Your task to perform on an android device: open app "Indeed Job Search" Image 0: 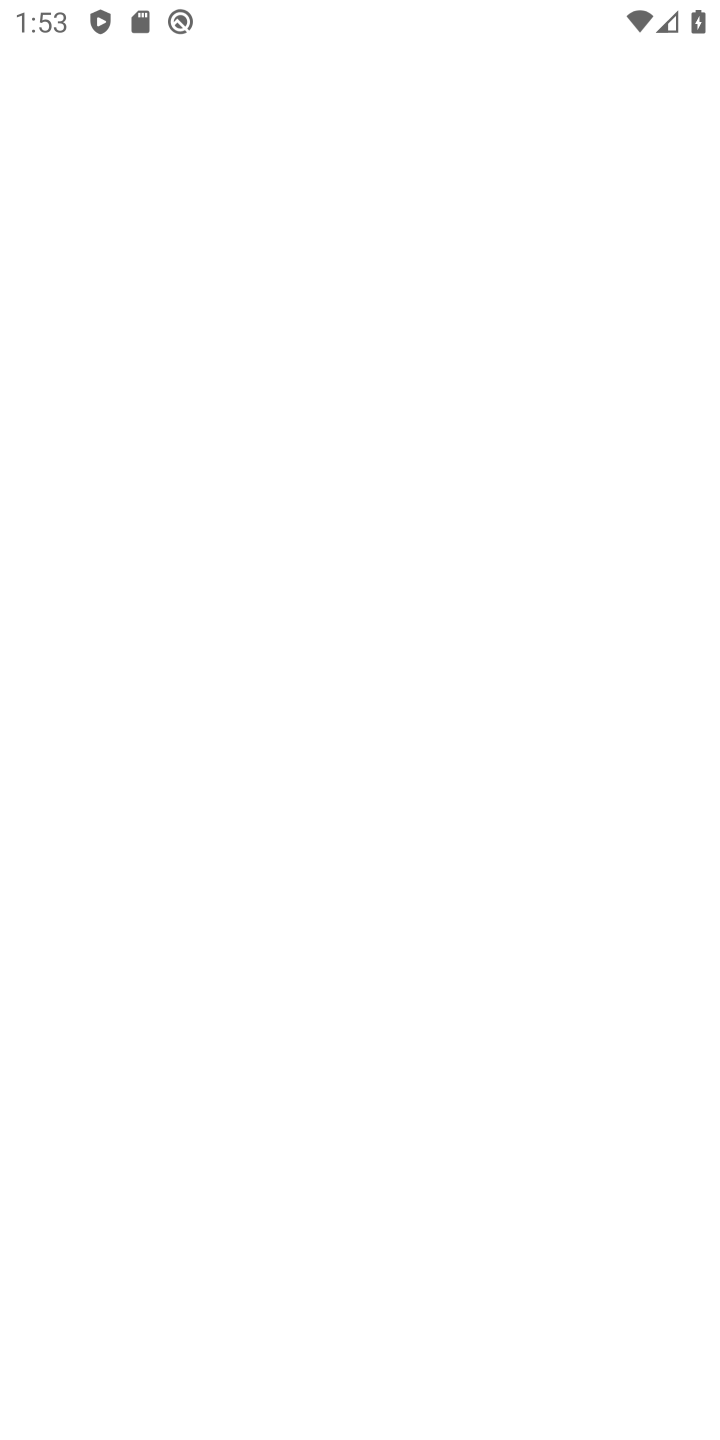
Step 0: press back button
Your task to perform on an android device: open app "Indeed Job Search" Image 1: 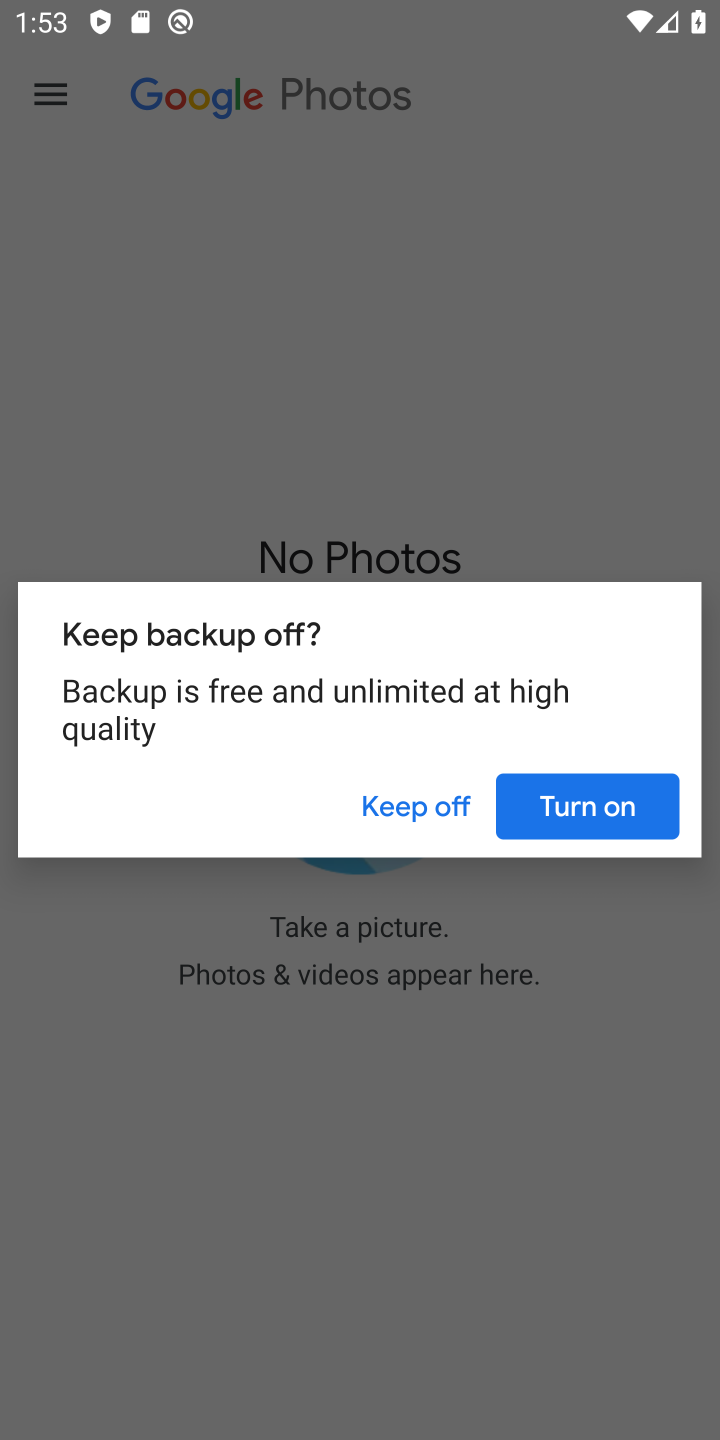
Step 1: press home button
Your task to perform on an android device: open app "Indeed Job Search" Image 2: 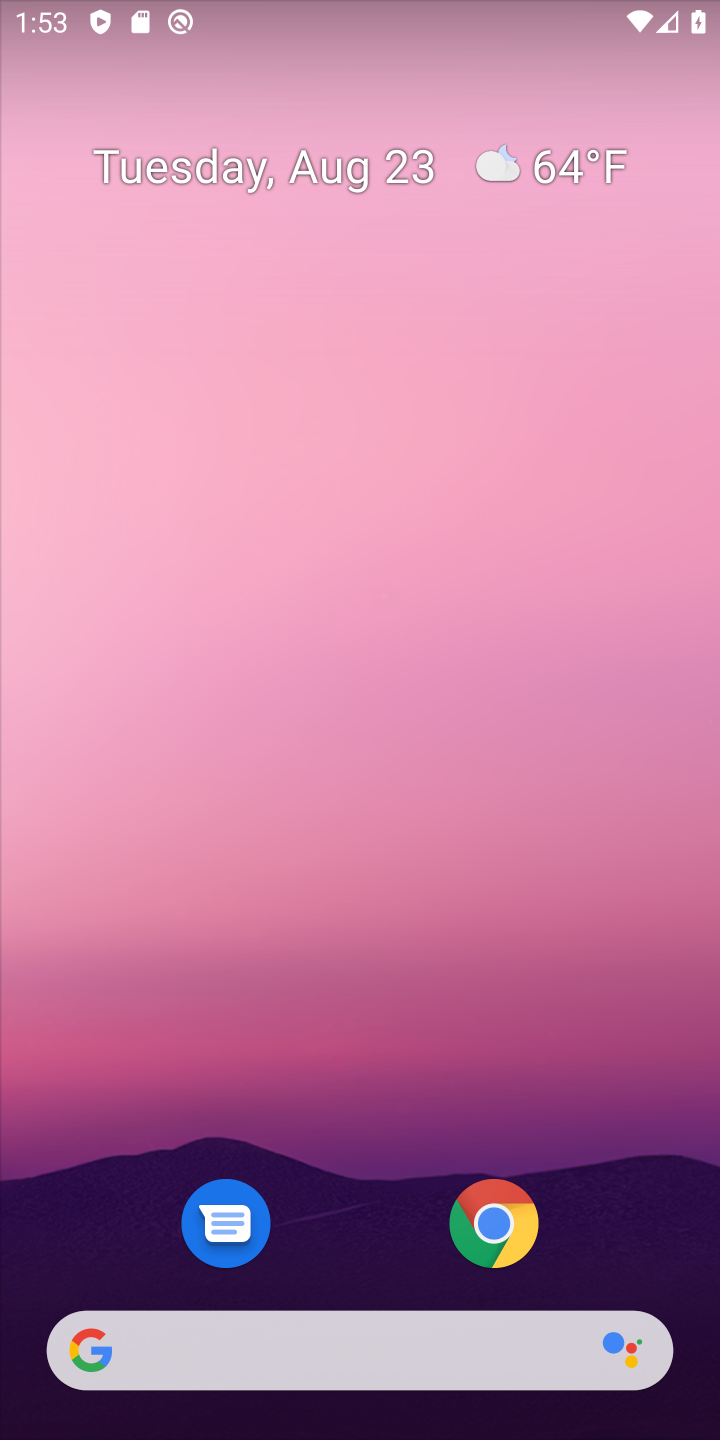
Step 2: drag from (369, 1162) to (428, 280)
Your task to perform on an android device: open app "Indeed Job Search" Image 3: 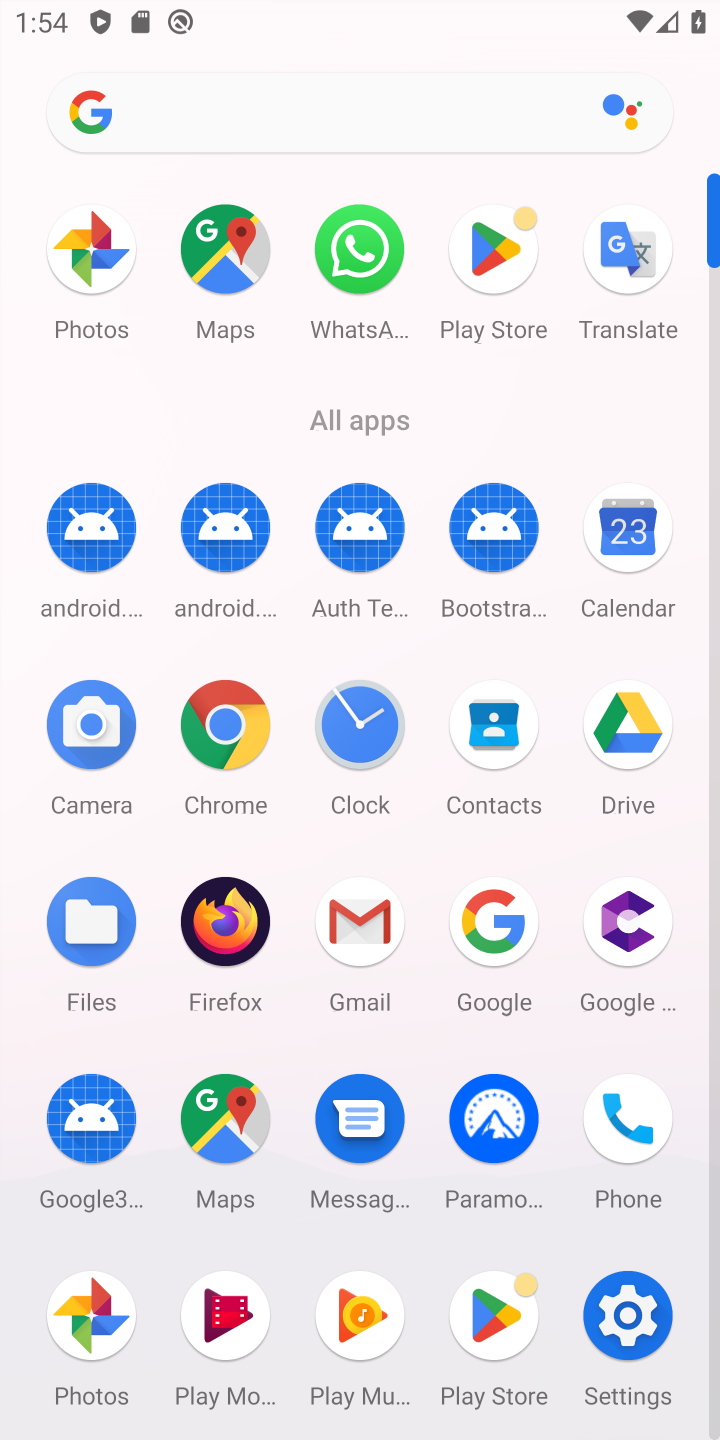
Step 3: click (506, 258)
Your task to perform on an android device: open app "Indeed Job Search" Image 4: 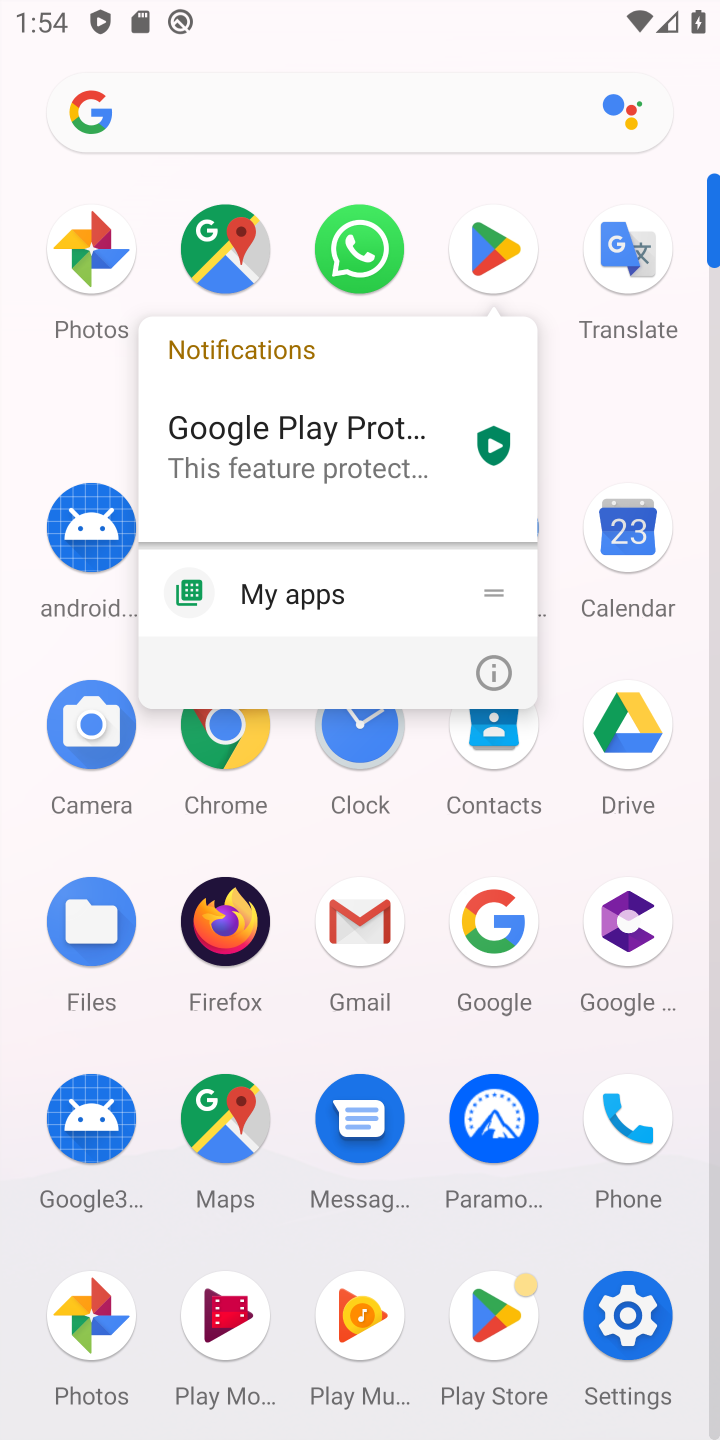
Step 4: click (480, 266)
Your task to perform on an android device: open app "Indeed Job Search" Image 5: 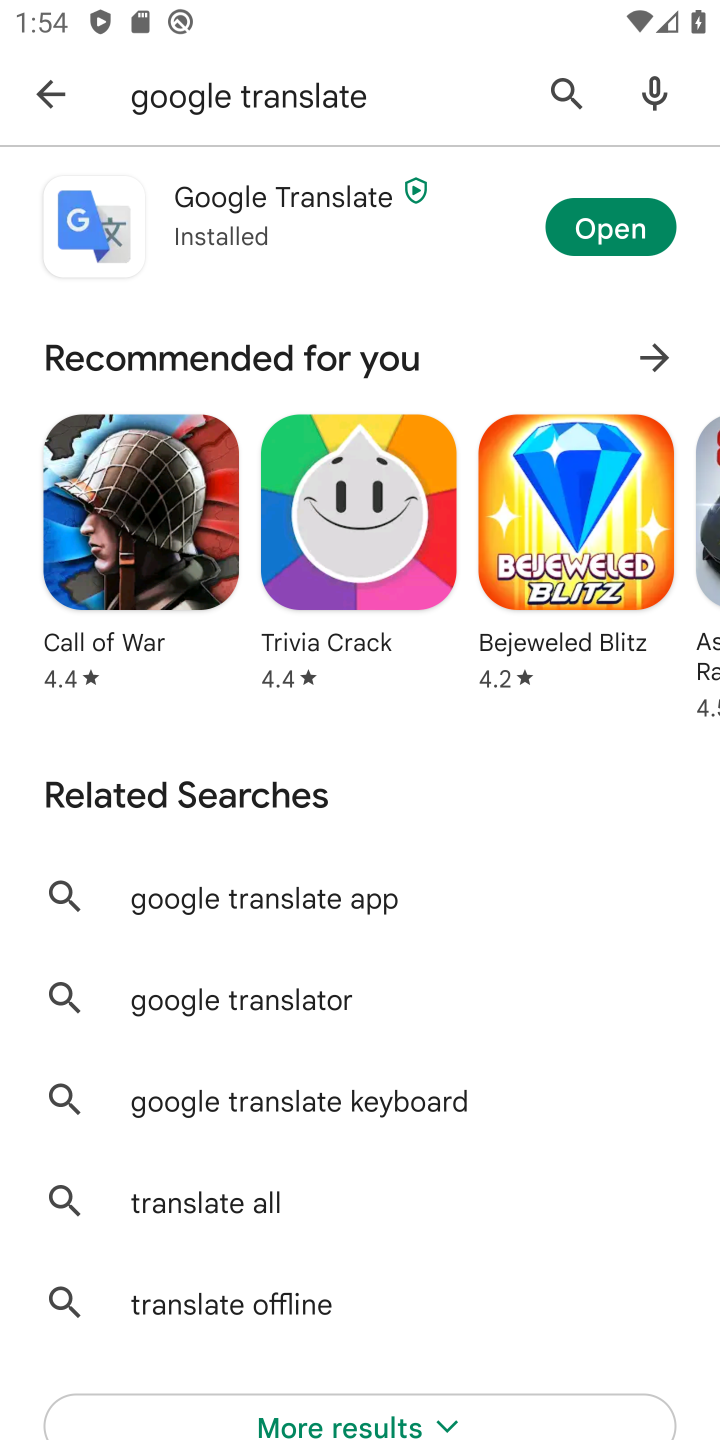
Step 5: click (541, 82)
Your task to perform on an android device: open app "Indeed Job Search" Image 6: 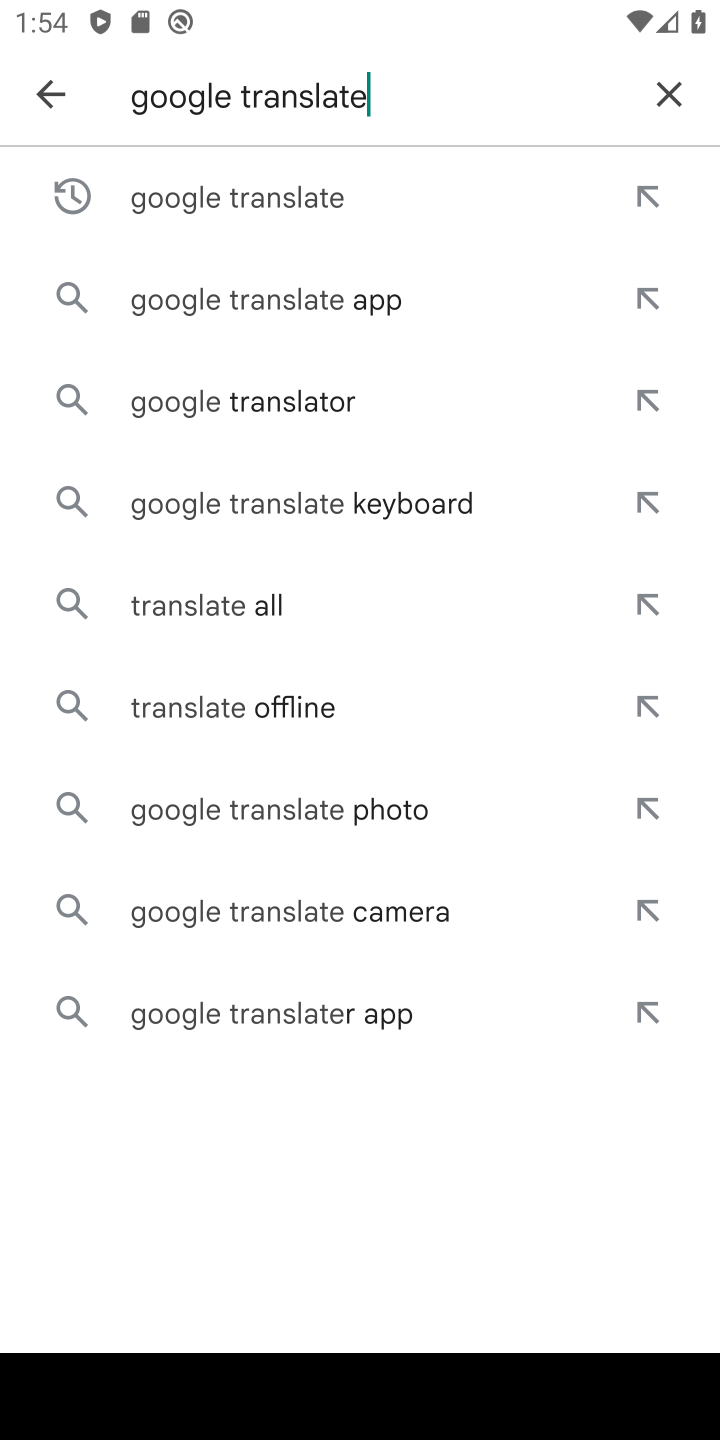
Step 6: click (686, 97)
Your task to perform on an android device: open app "Indeed Job Search" Image 7: 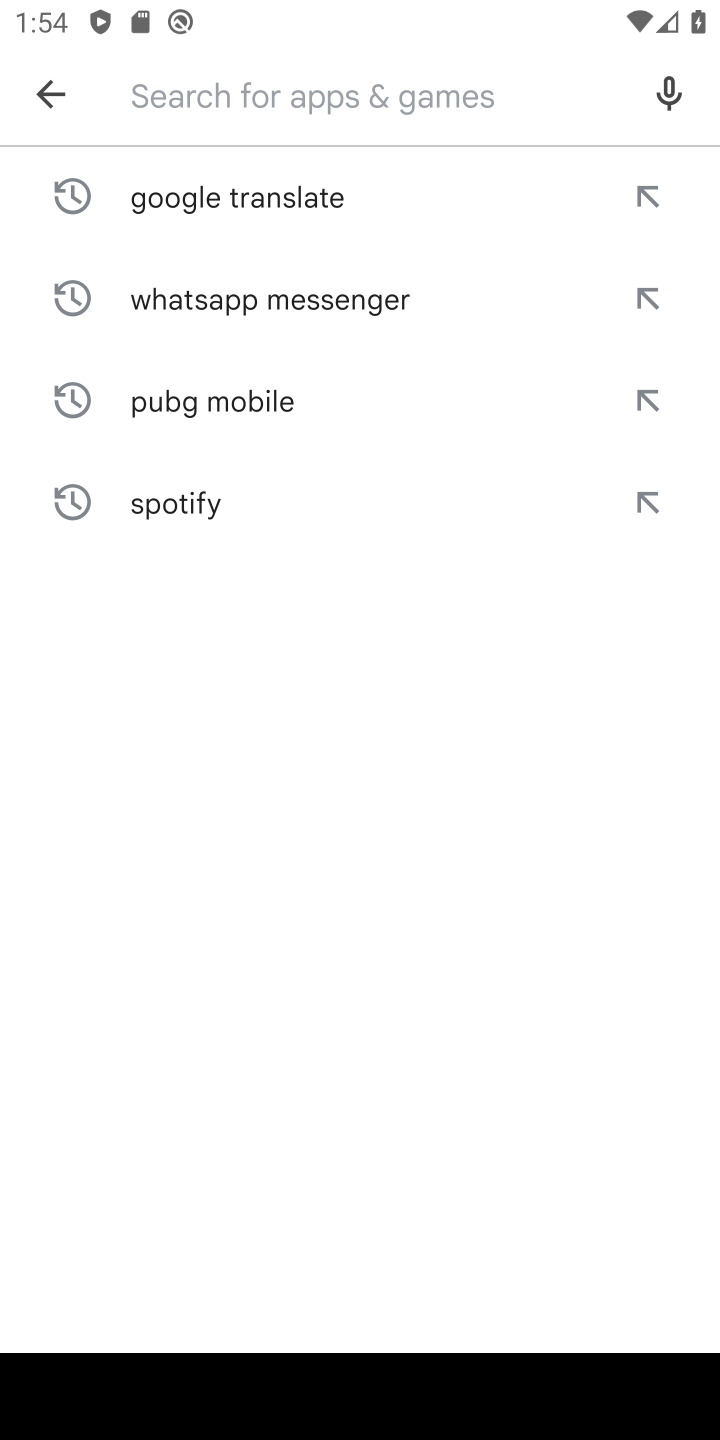
Step 7: click (307, 73)
Your task to perform on an android device: open app "Indeed Job Search" Image 8: 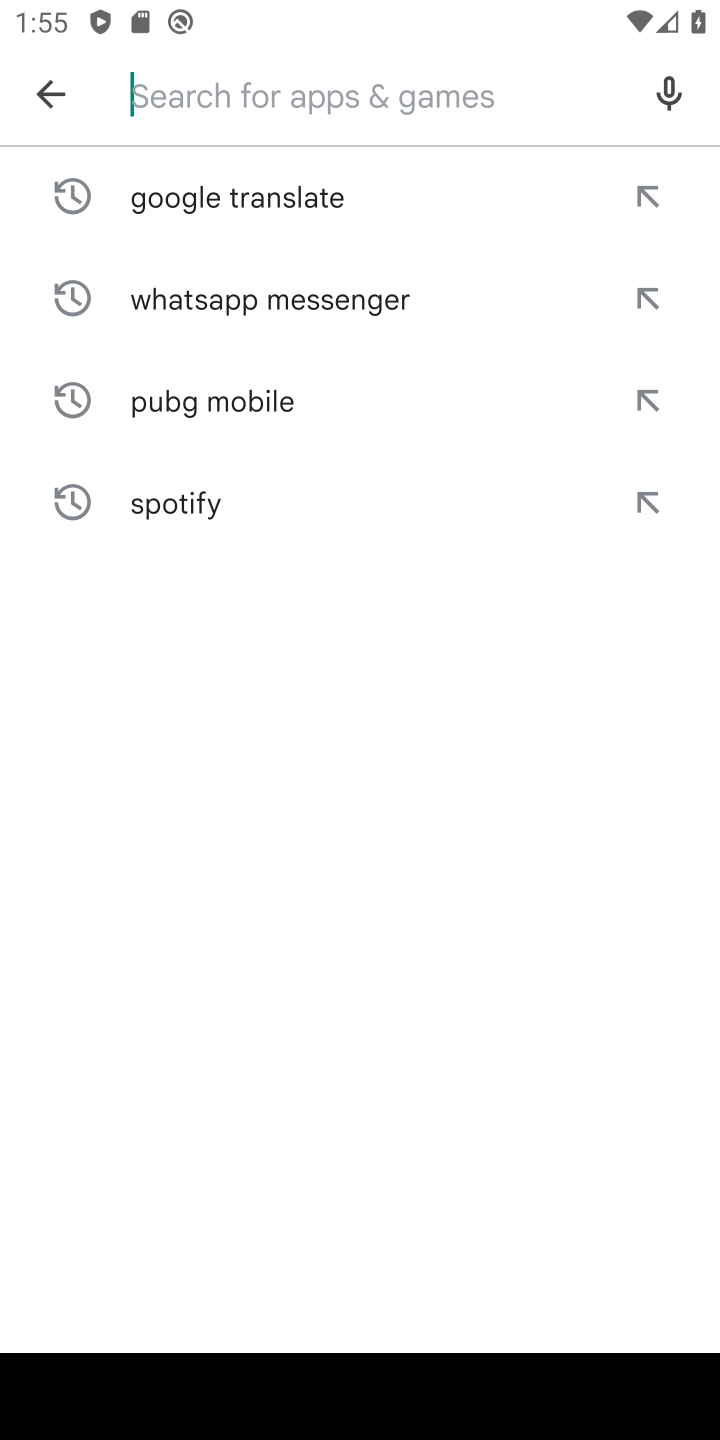
Step 8: click (240, 98)
Your task to perform on an android device: open app "Indeed Job Search" Image 9: 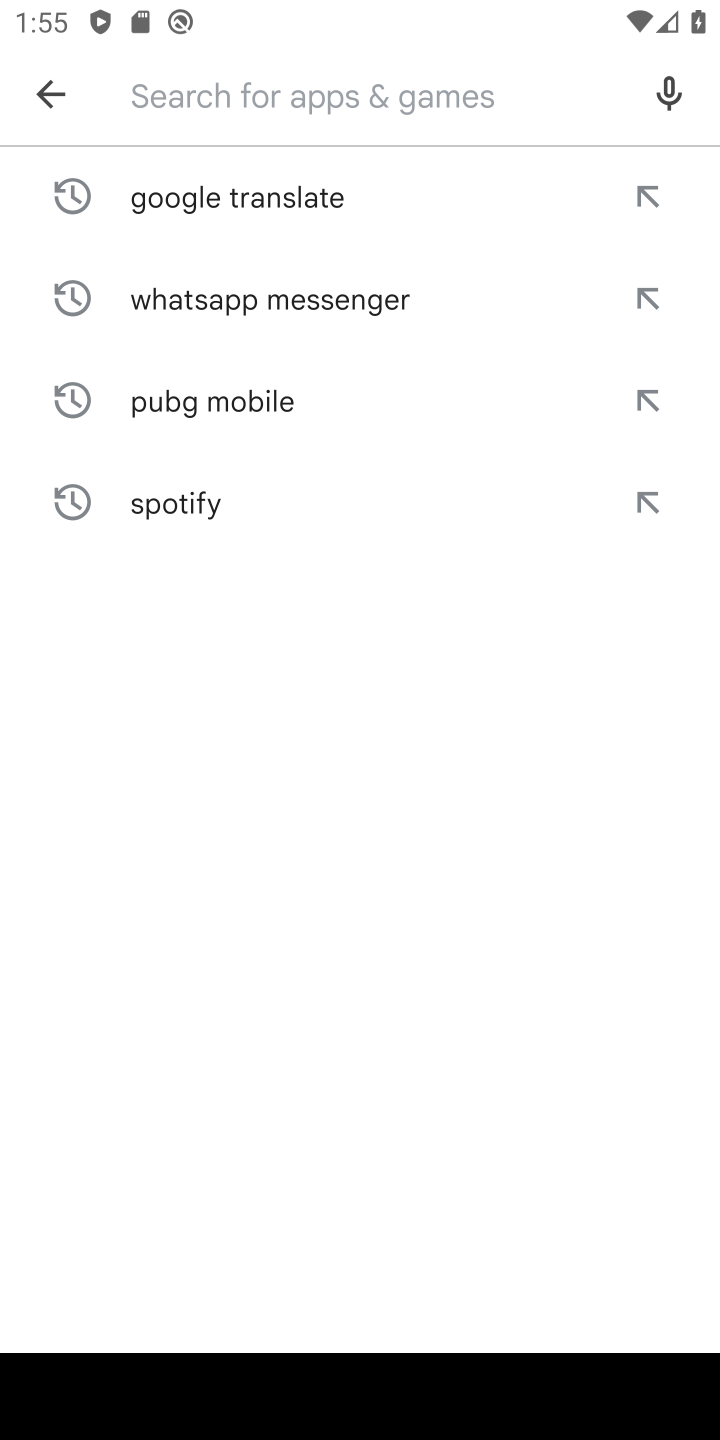
Step 9: type "Indeed Job Search"
Your task to perform on an android device: open app "Indeed Job Search" Image 10: 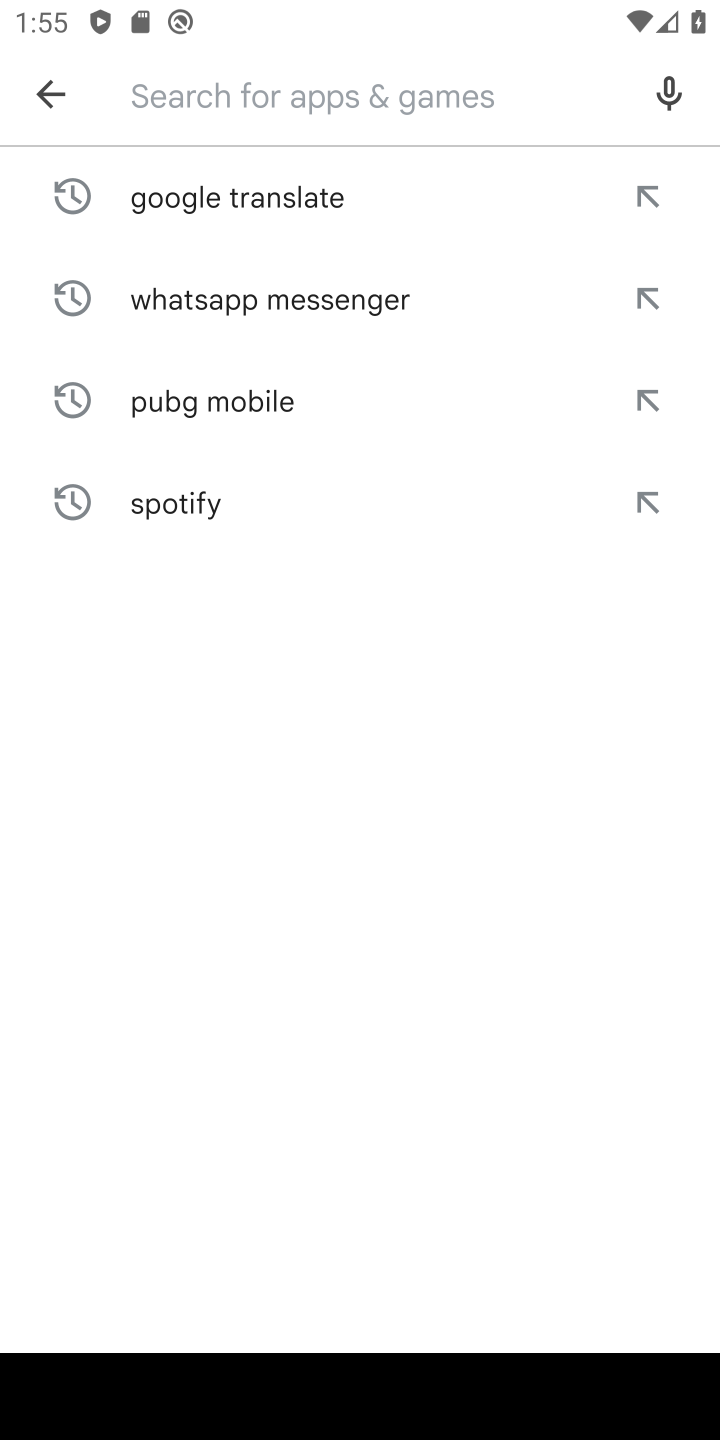
Step 10: click (347, 993)
Your task to perform on an android device: open app "Indeed Job Search" Image 11: 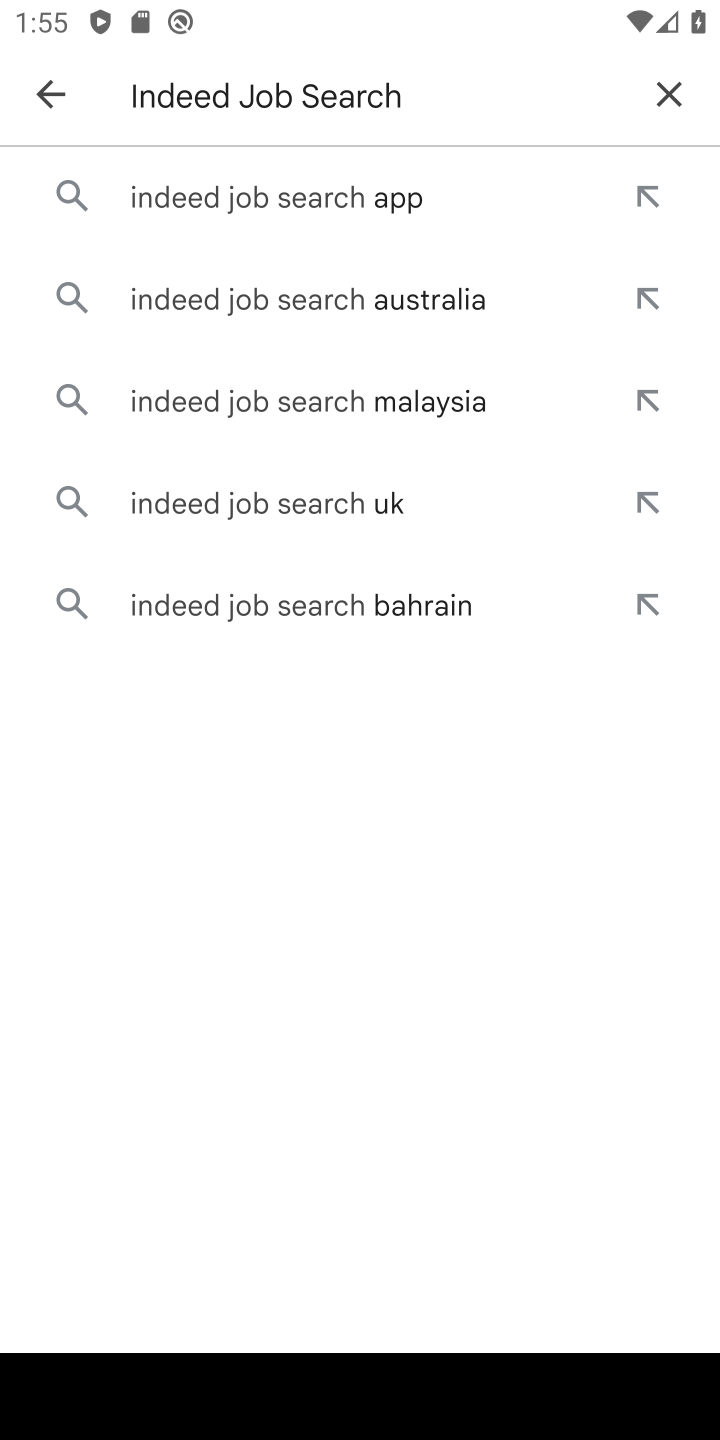
Step 11: click (341, 197)
Your task to perform on an android device: open app "Indeed Job Search" Image 12: 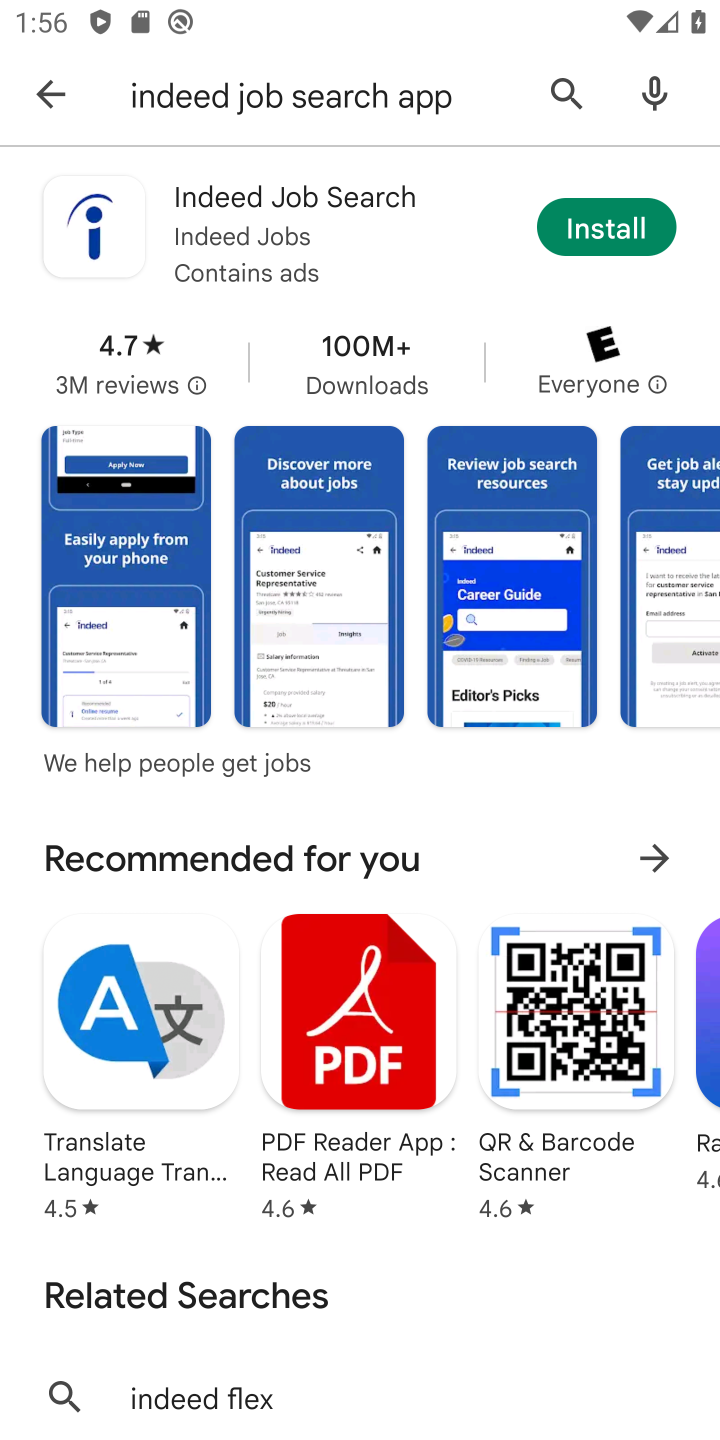
Step 12: task complete